Your task to perform on an android device: check android version Image 0: 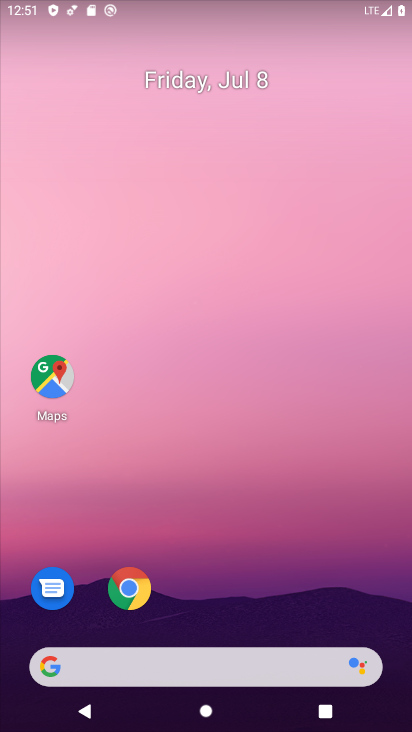
Step 0: drag from (206, 625) to (258, 4)
Your task to perform on an android device: check android version Image 1: 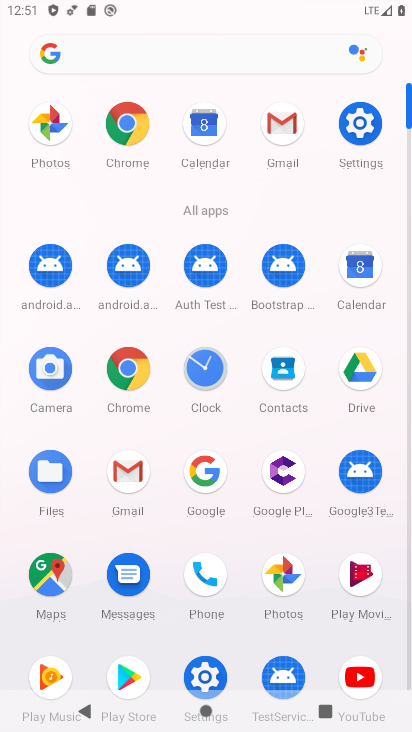
Step 1: click (373, 135)
Your task to perform on an android device: check android version Image 2: 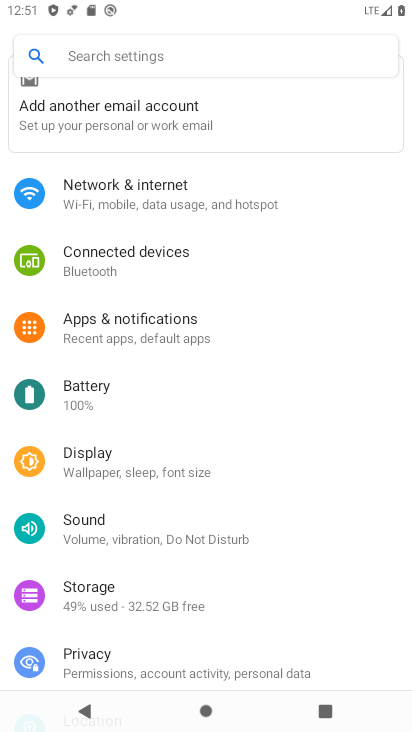
Step 2: drag from (131, 517) to (185, 2)
Your task to perform on an android device: check android version Image 3: 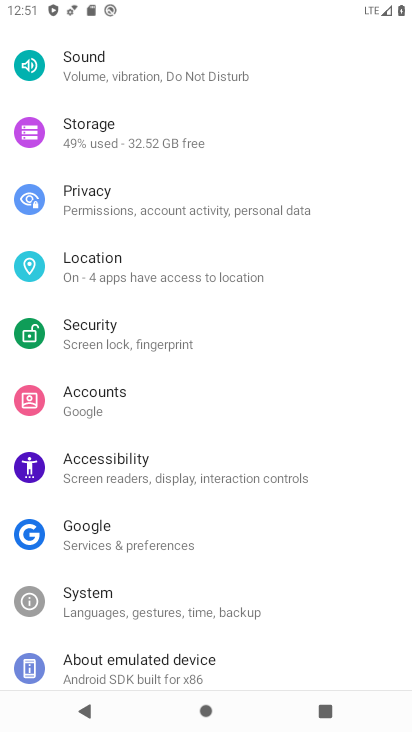
Step 3: drag from (147, 598) to (157, 386)
Your task to perform on an android device: check android version Image 4: 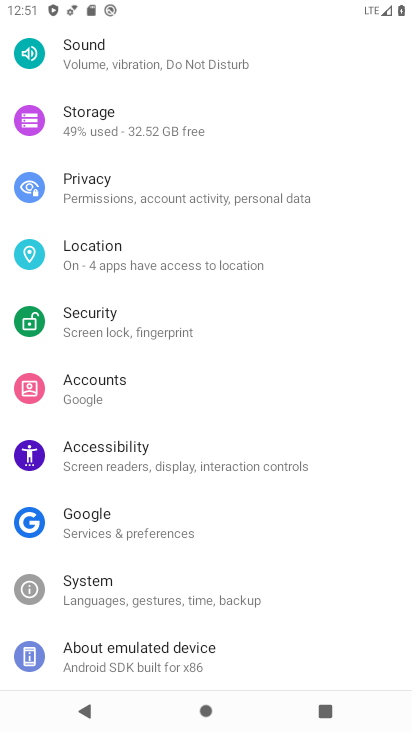
Step 4: click (95, 658)
Your task to perform on an android device: check android version Image 5: 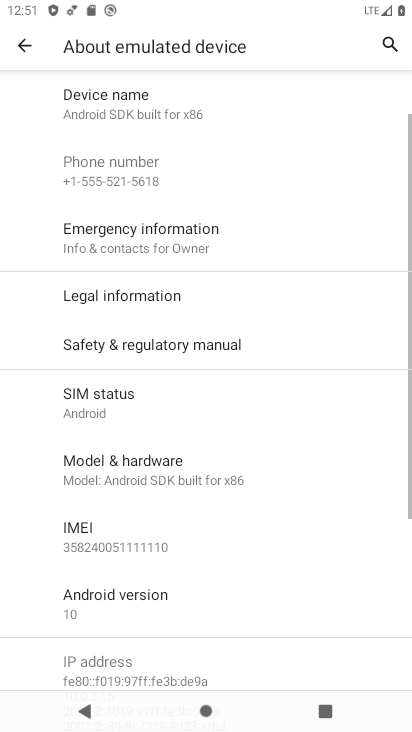
Step 5: click (99, 602)
Your task to perform on an android device: check android version Image 6: 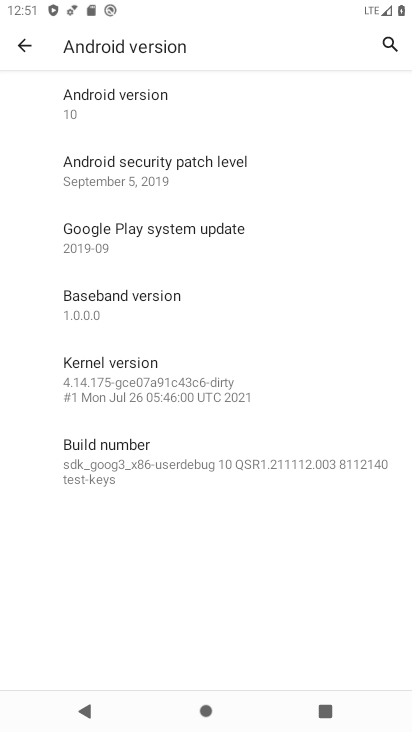
Step 6: task complete